Your task to perform on an android device: empty trash in google photos Image 0: 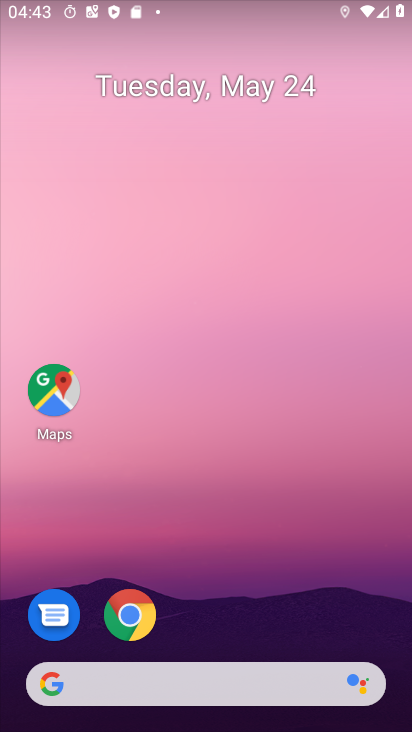
Step 0: drag from (222, 613) to (307, 22)
Your task to perform on an android device: empty trash in google photos Image 1: 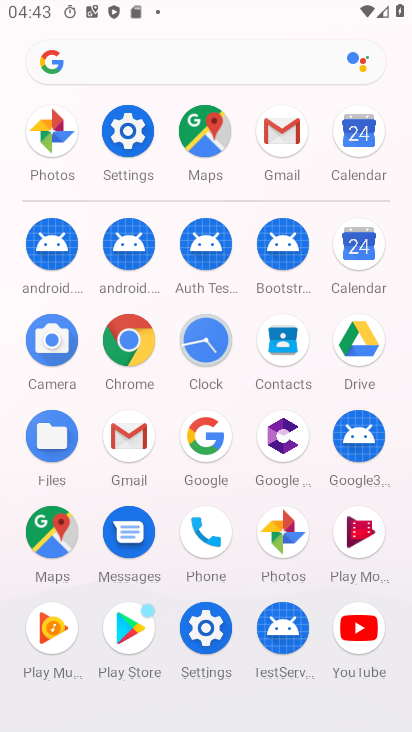
Step 1: click (284, 531)
Your task to perform on an android device: empty trash in google photos Image 2: 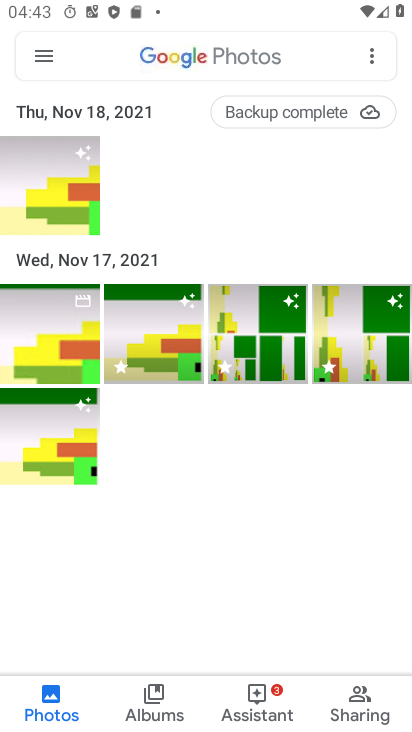
Step 2: click (55, 709)
Your task to perform on an android device: empty trash in google photos Image 3: 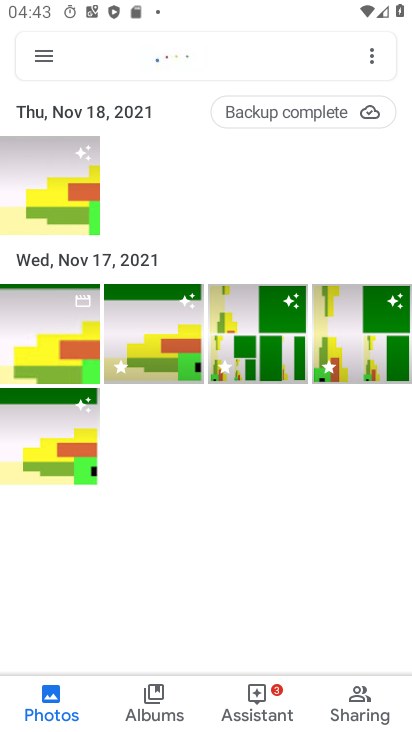
Step 3: click (43, 64)
Your task to perform on an android device: empty trash in google photos Image 4: 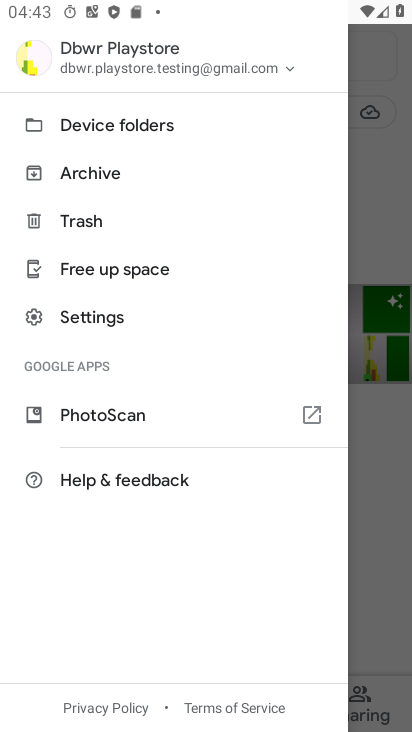
Step 4: click (113, 214)
Your task to perform on an android device: empty trash in google photos Image 5: 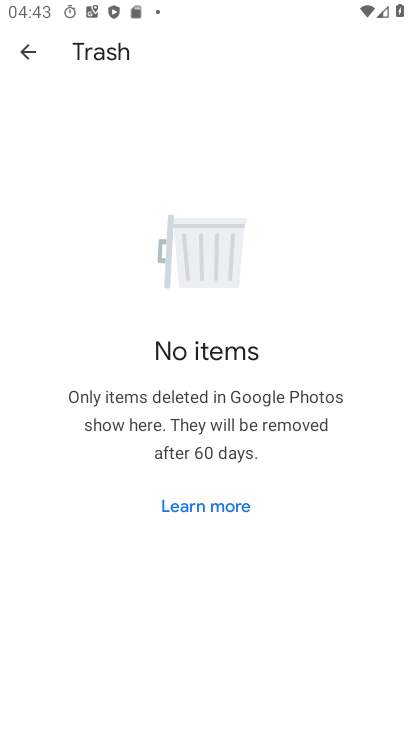
Step 5: task complete